Your task to perform on an android device: turn off location history Image 0: 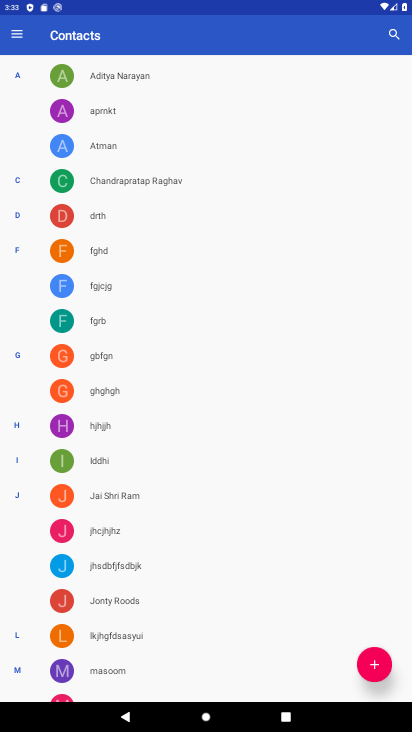
Step 0: press home button
Your task to perform on an android device: turn off location history Image 1: 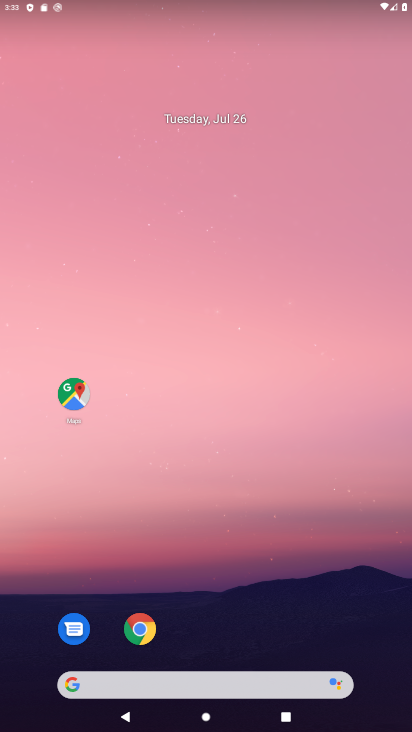
Step 1: drag from (350, 625) to (282, 111)
Your task to perform on an android device: turn off location history Image 2: 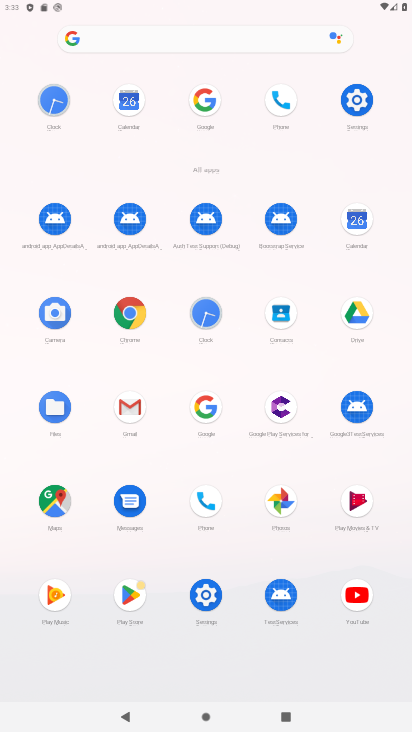
Step 2: click (206, 602)
Your task to perform on an android device: turn off location history Image 3: 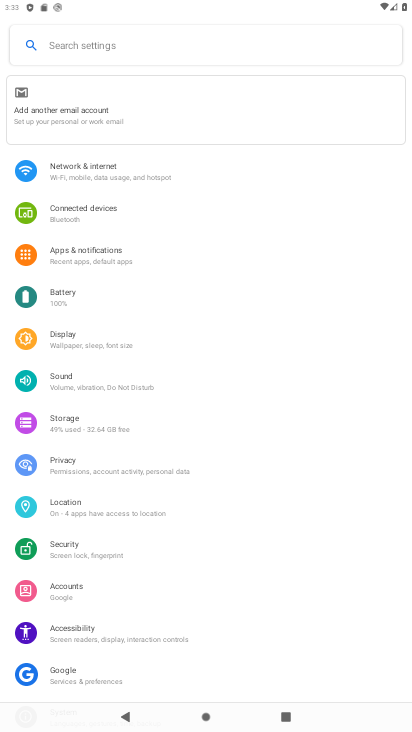
Step 3: click (138, 504)
Your task to perform on an android device: turn off location history Image 4: 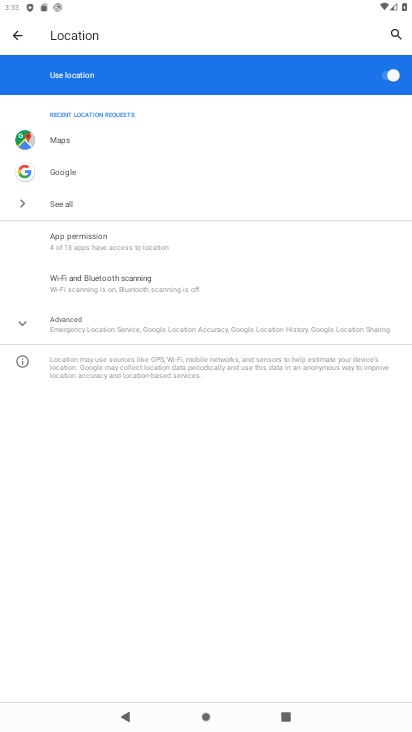
Step 4: click (122, 325)
Your task to perform on an android device: turn off location history Image 5: 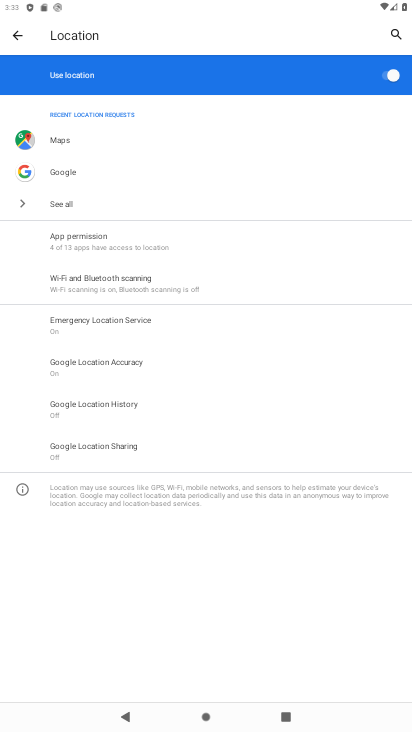
Step 5: click (125, 405)
Your task to perform on an android device: turn off location history Image 6: 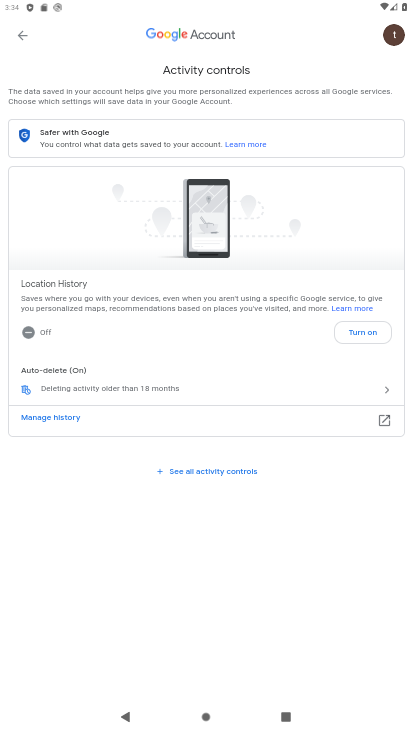
Step 6: task complete